Your task to perform on an android device: Open Reddit.com Image 0: 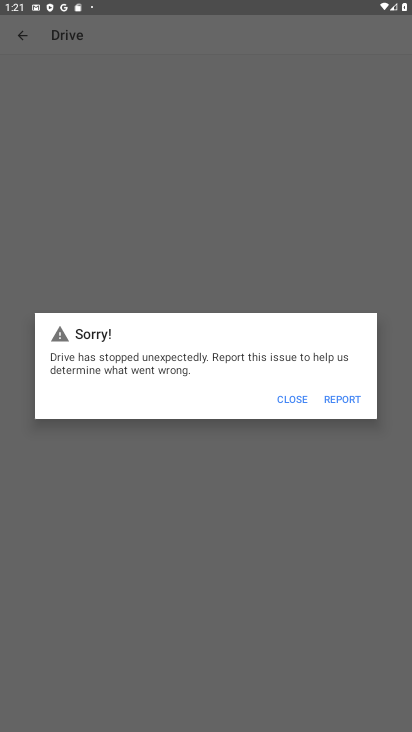
Step 0: press home button
Your task to perform on an android device: Open Reddit.com Image 1: 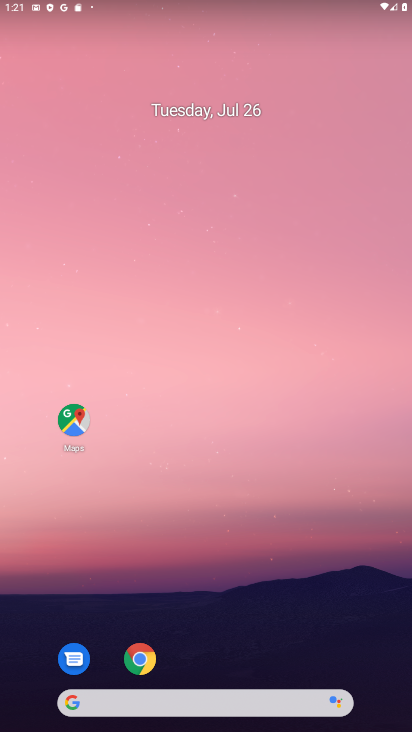
Step 1: click (67, 701)
Your task to perform on an android device: Open Reddit.com Image 2: 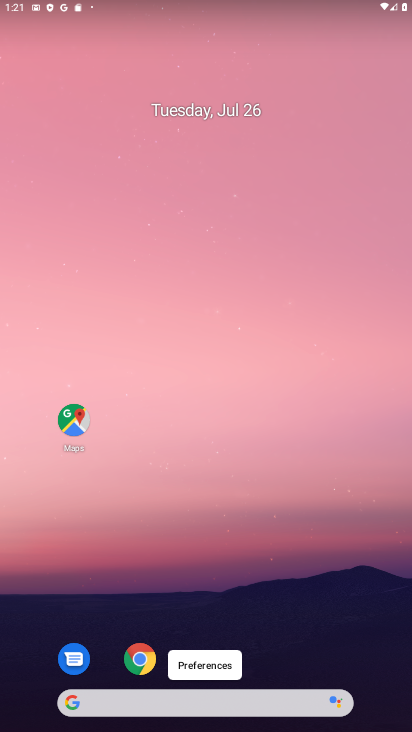
Step 2: click (73, 707)
Your task to perform on an android device: Open Reddit.com Image 3: 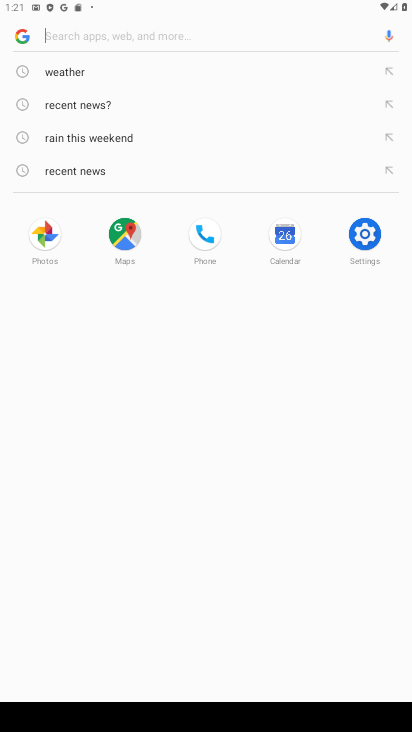
Step 3: type "Reddit.com"
Your task to perform on an android device: Open Reddit.com Image 4: 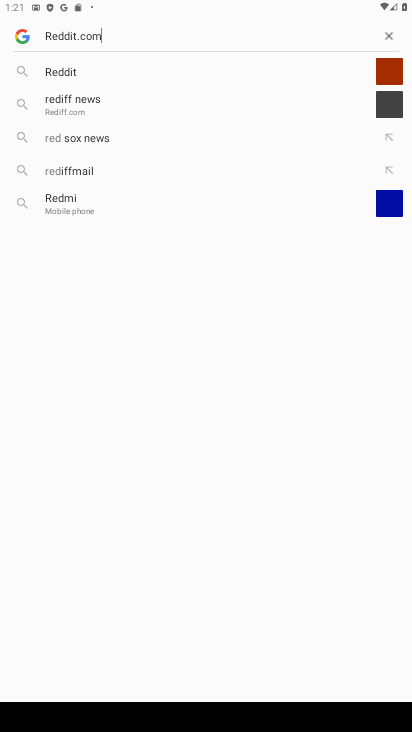
Step 4: press enter
Your task to perform on an android device: Open Reddit.com Image 5: 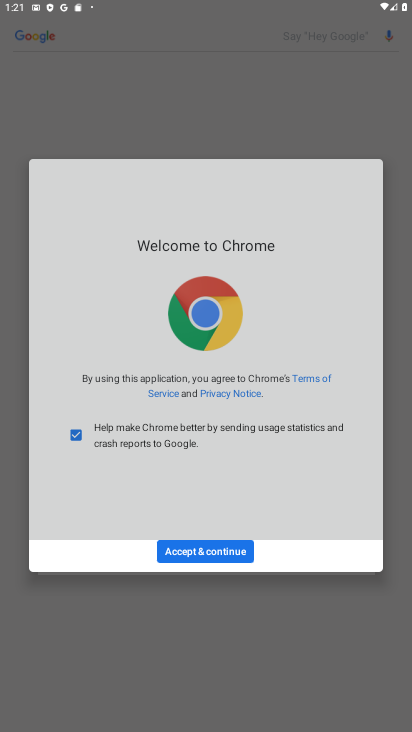
Step 5: click (201, 551)
Your task to perform on an android device: Open Reddit.com Image 6: 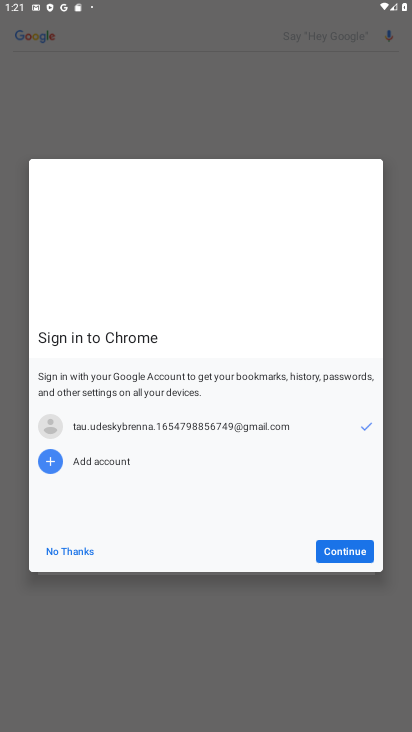
Step 6: click (347, 553)
Your task to perform on an android device: Open Reddit.com Image 7: 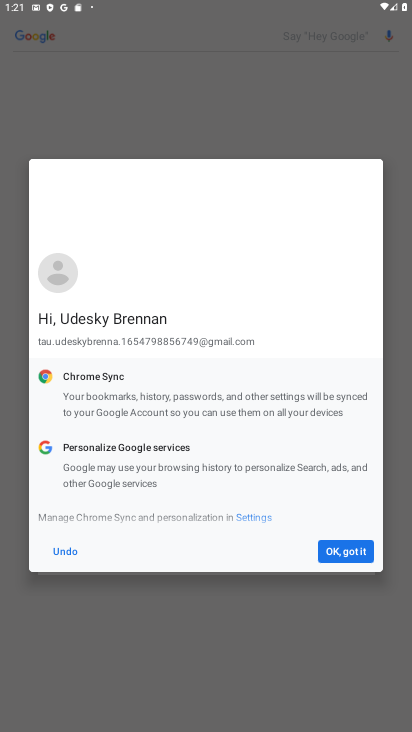
Step 7: click (347, 553)
Your task to perform on an android device: Open Reddit.com Image 8: 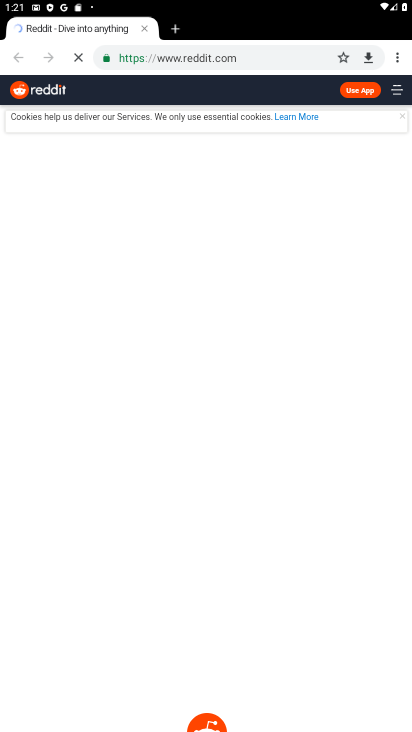
Step 8: task complete